Your task to perform on an android device: Open Chrome and go to settings Image 0: 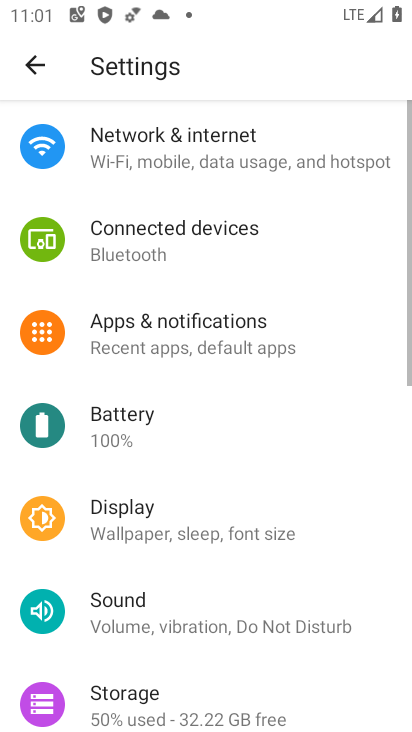
Step 0: press home button
Your task to perform on an android device: Open Chrome and go to settings Image 1: 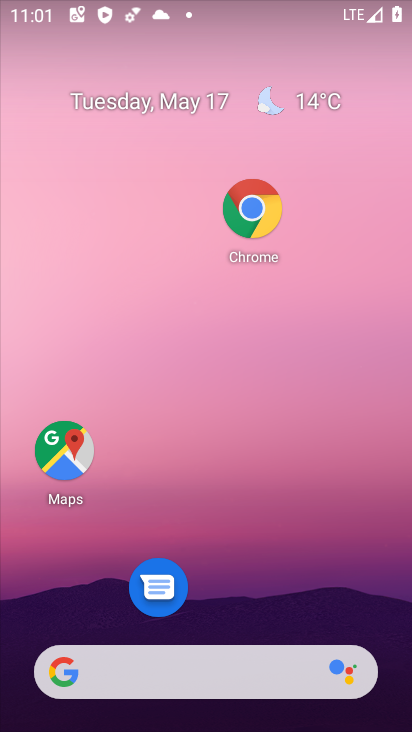
Step 1: click (255, 218)
Your task to perform on an android device: Open Chrome and go to settings Image 2: 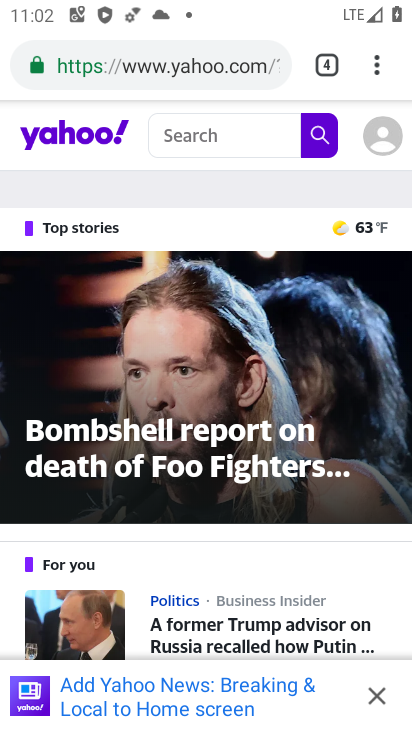
Step 2: click (389, 55)
Your task to perform on an android device: Open Chrome and go to settings Image 3: 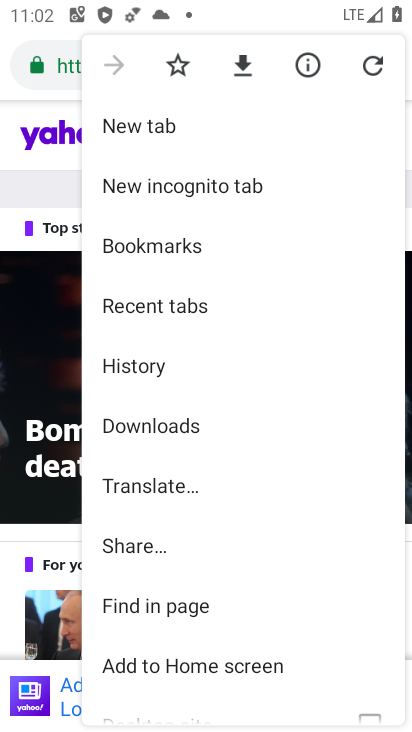
Step 3: drag from (245, 546) to (237, 174)
Your task to perform on an android device: Open Chrome and go to settings Image 4: 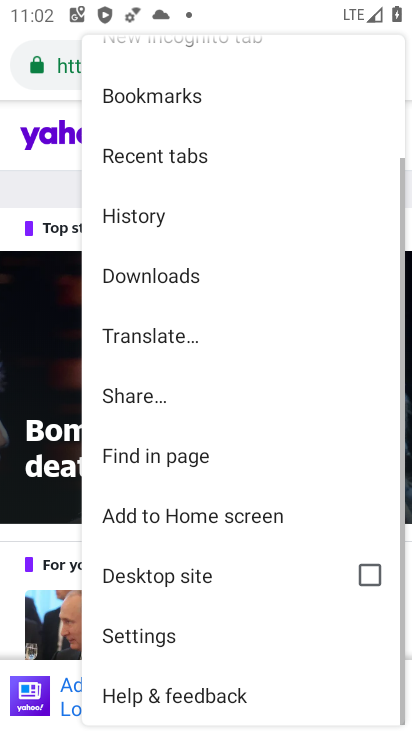
Step 4: click (170, 638)
Your task to perform on an android device: Open Chrome and go to settings Image 5: 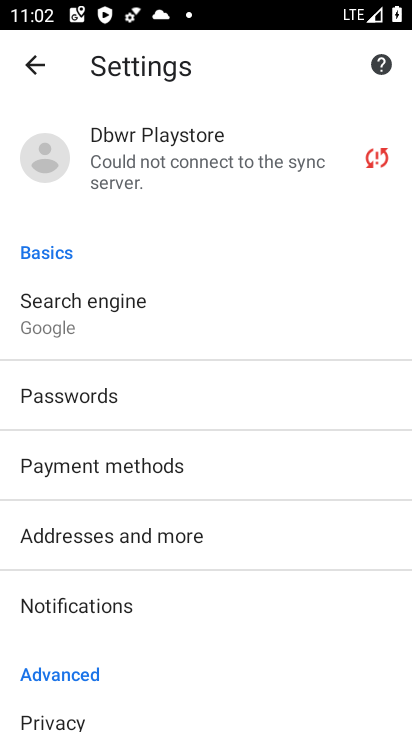
Step 5: task complete